Your task to perform on an android device: turn notification dots on Image 0: 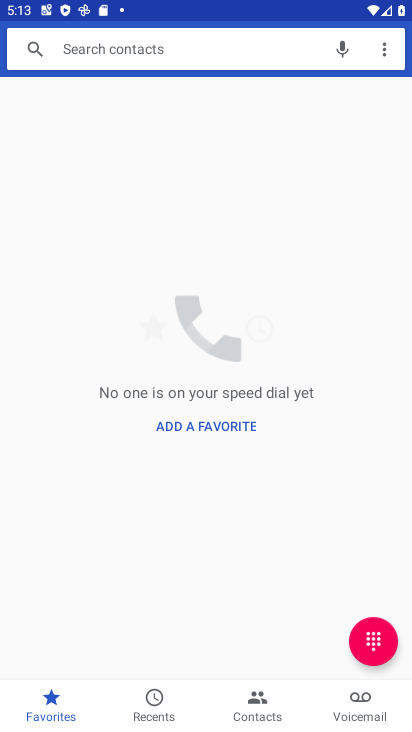
Step 0: press home button
Your task to perform on an android device: turn notification dots on Image 1: 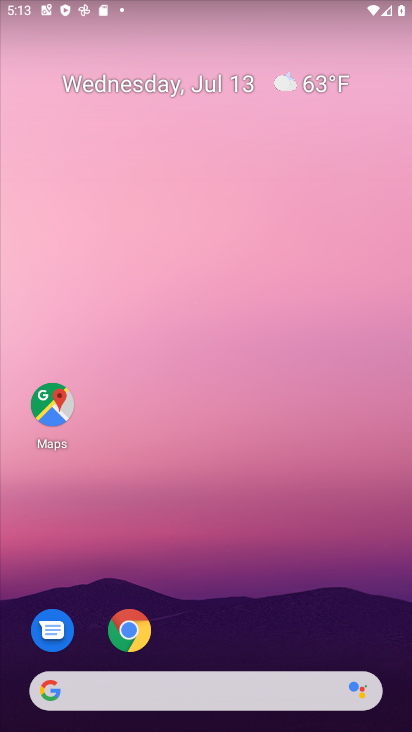
Step 1: drag from (188, 655) to (232, 223)
Your task to perform on an android device: turn notification dots on Image 2: 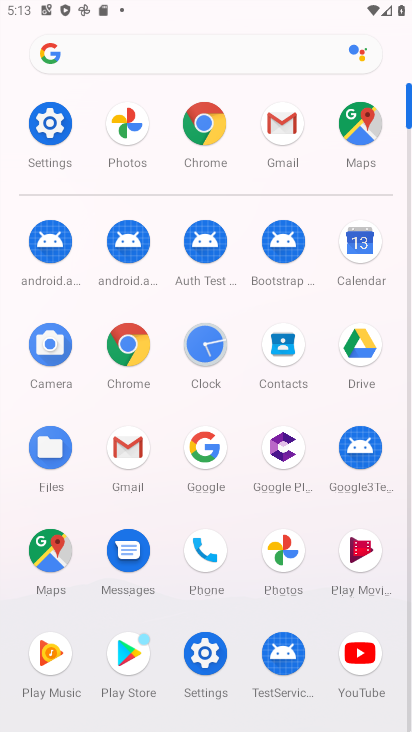
Step 2: click (38, 133)
Your task to perform on an android device: turn notification dots on Image 3: 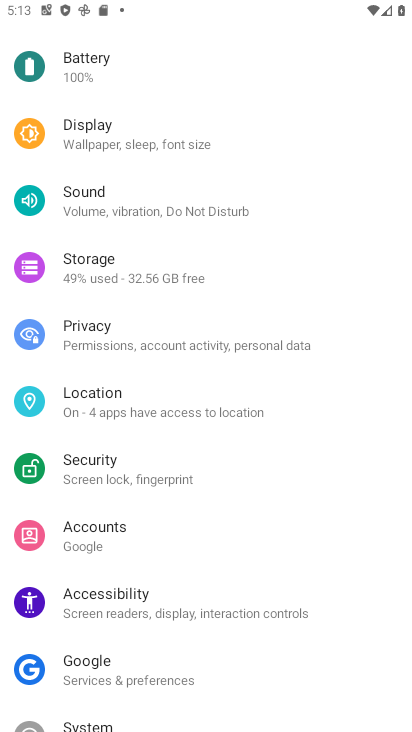
Step 3: drag from (347, 237) to (354, 730)
Your task to perform on an android device: turn notification dots on Image 4: 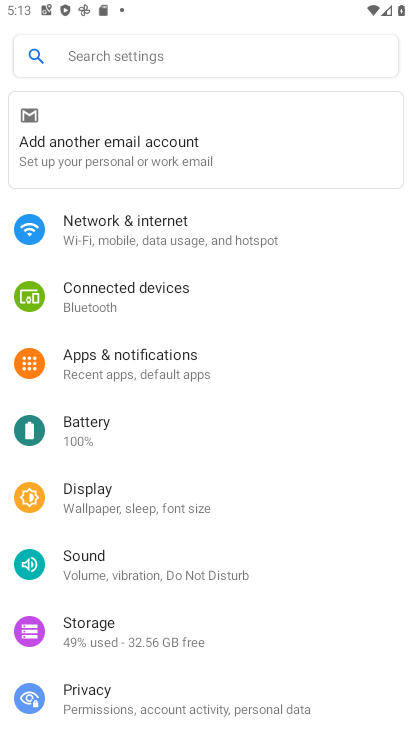
Step 4: click (167, 364)
Your task to perform on an android device: turn notification dots on Image 5: 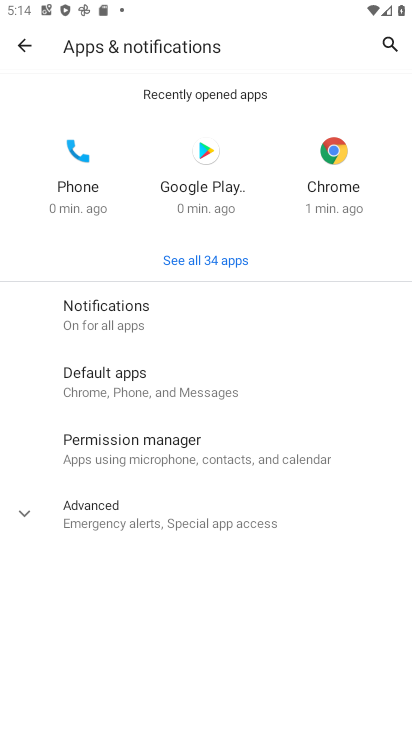
Step 5: click (110, 308)
Your task to perform on an android device: turn notification dots on Image 6: 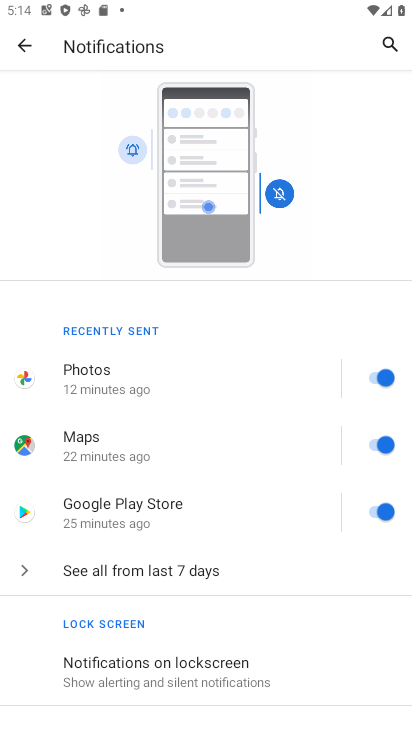
Step 6: drag from (361, 652) to (361, 222)
Your task to perform on an android device: turn notification dots on Image 7: 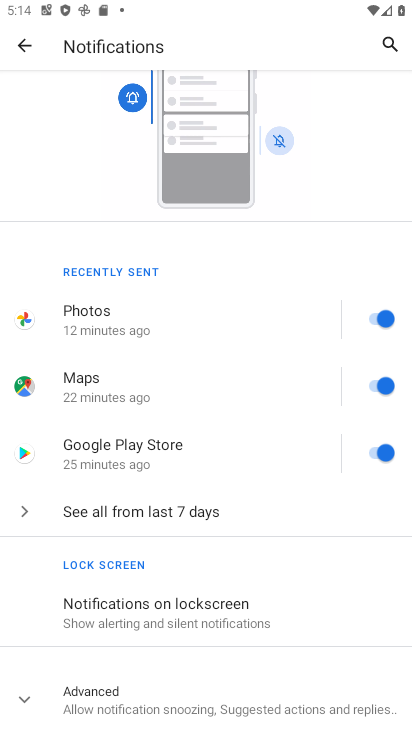
Step 7: click (75, 699)
Your task to perform on an android device: turn notification dots on Image 8: 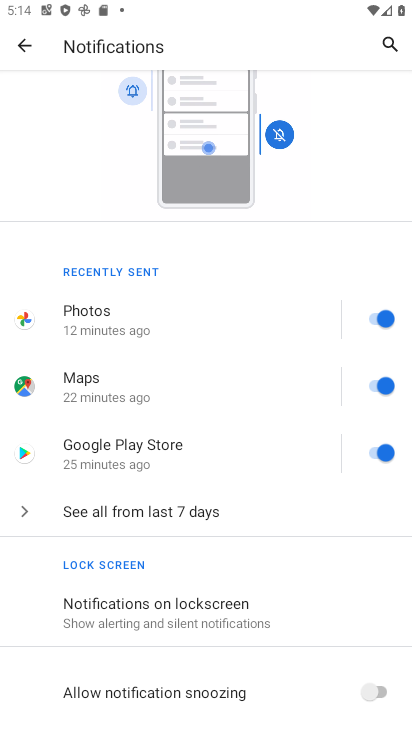
Step 8: task complete